Your task to perform on an android device: refresh tabs in the chrome app Image 0: 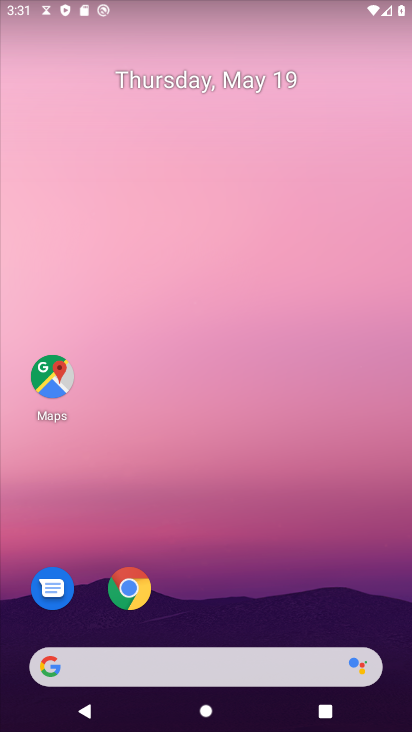
Step 0: click (133, 588)
Your task to perform on an android device: refresh tabs in the chrome app Image 1: 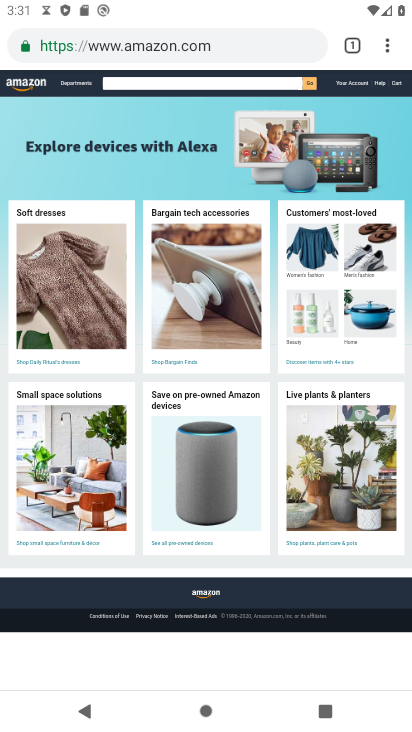
Step 1: click (391, 42)
Your task to perform on an android device: refresh tabs in the chrome app Image 2: 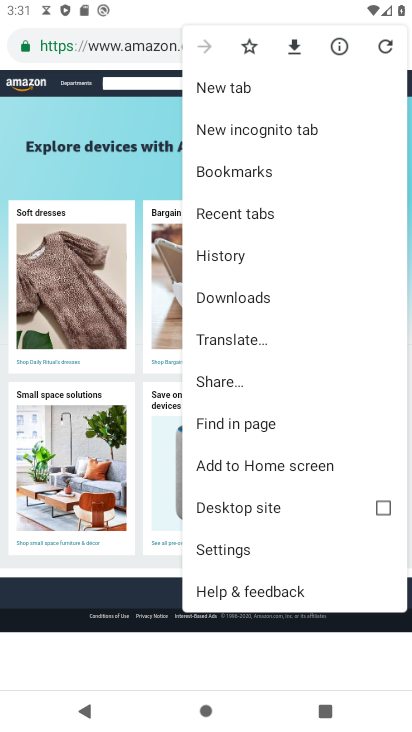
Step 2: click (388, 44)
Your task to perform on an android device: refresh tabs in the chrome app Image 3: 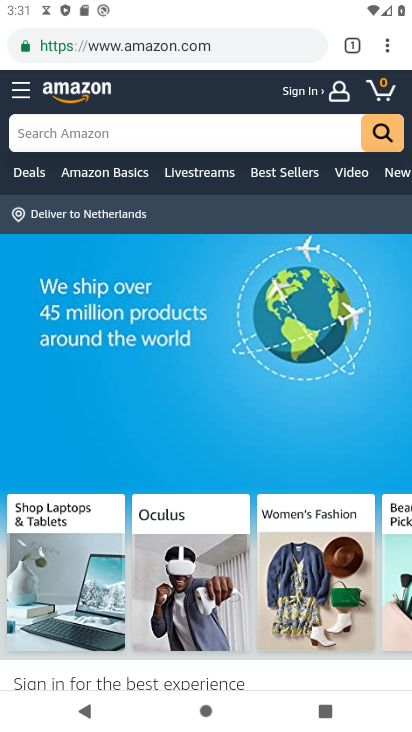
Step 3: task complete